Your task to perform on an android device: turn on showing notifications on the lock screen Image 0: 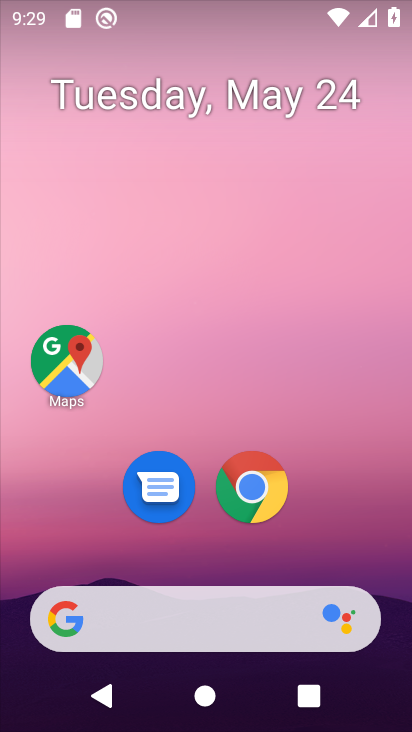
Step 0: press home button
Your task to perform on an android device: turn on showing notifications on the lock screen Image 1: 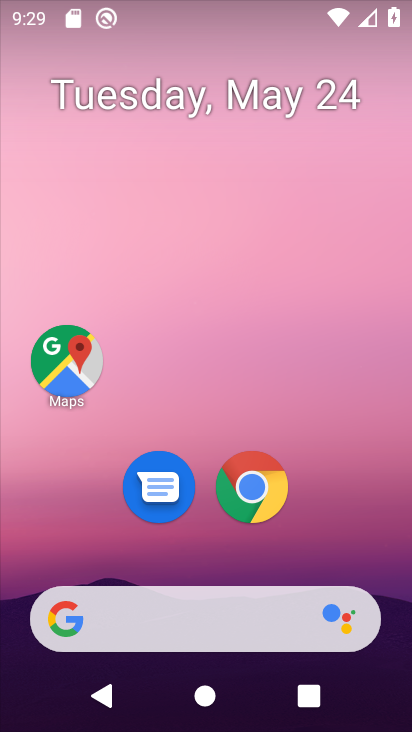
Step 1: drag from (170, 614) to (345, 83)
Your task to perform on an android device: turn on showing notifications on the lock screen Image 2: 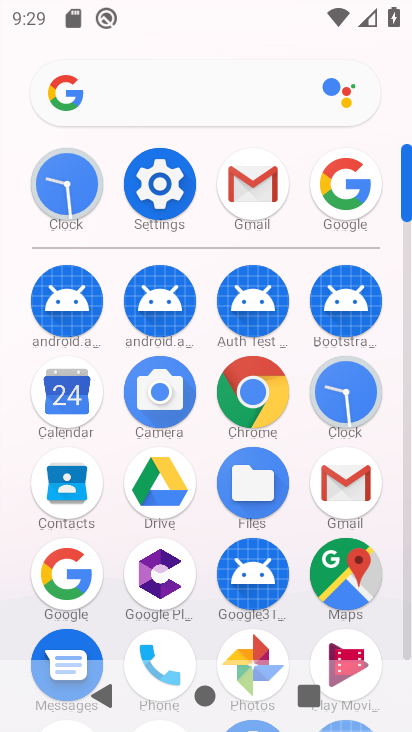
Step 2: click (164, 198)
Your task to perform on an android device: turn on showing notifications on the lock screen Image 3: 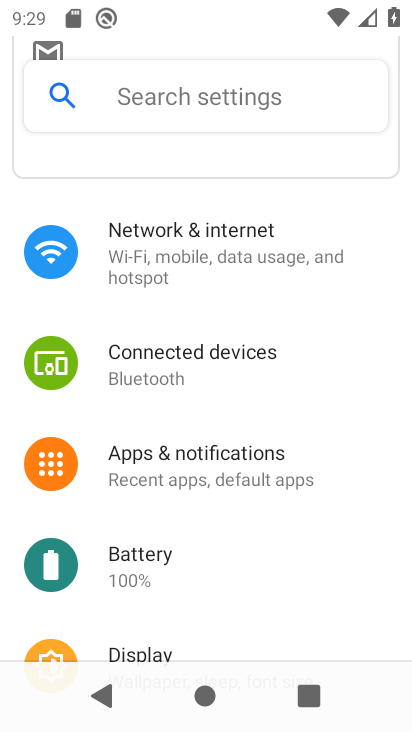
Step 3: click (258, 463)
Your task to perform on an android device: turn on showing notifications on the lock screen Image 4: 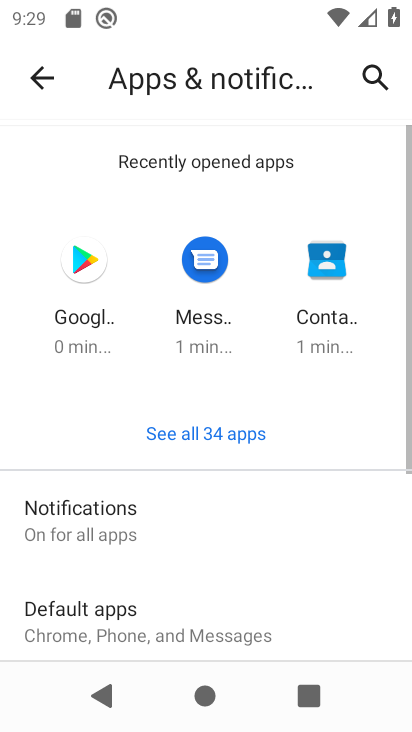
Step 4: click (128, 518)
Your task to perform on an android device: turn on showing notifications on the lock screen Image 5: 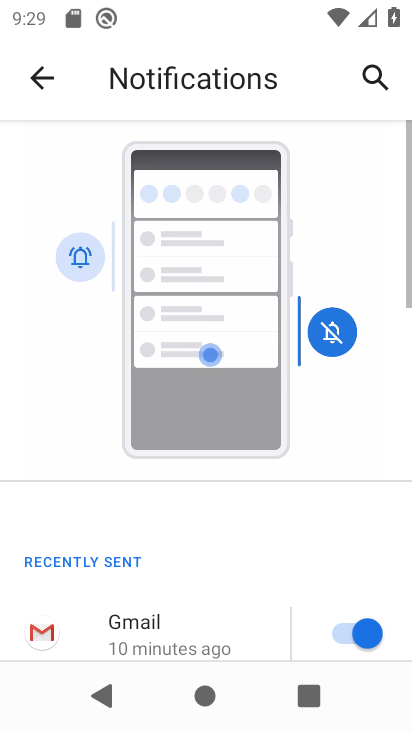
Step 5: drag from (231, 579) to (307, 110)
Your task to perform on an android device: turn on showing notifications on the lock screen Image 6: 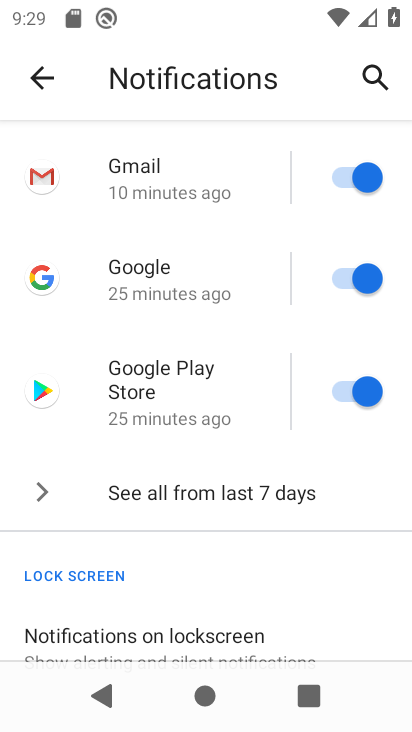
Step 6: drag from (220, 523) to (242, 270)
Your task to perform on an android device: turn on showing notifications on the lock screen Image 7: 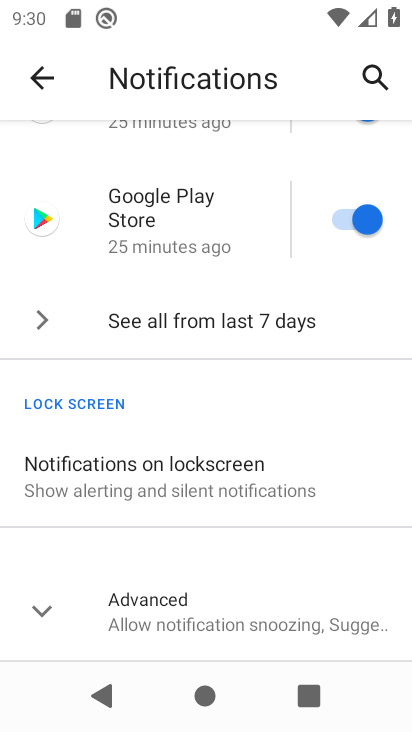
Step 7: click (127, 478)
Your task to perform on an android device: turn on showing notifications on the lock screen Image 8: 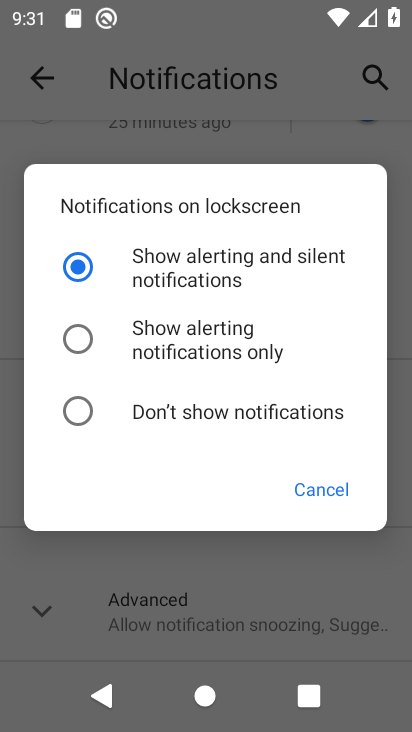
Step 8: task complete